Your task to perform on an android device: Clear the shopping cart on amazon. Search for "usb-a" on amazon, select the first entry, and add it to the cart. Image 0: 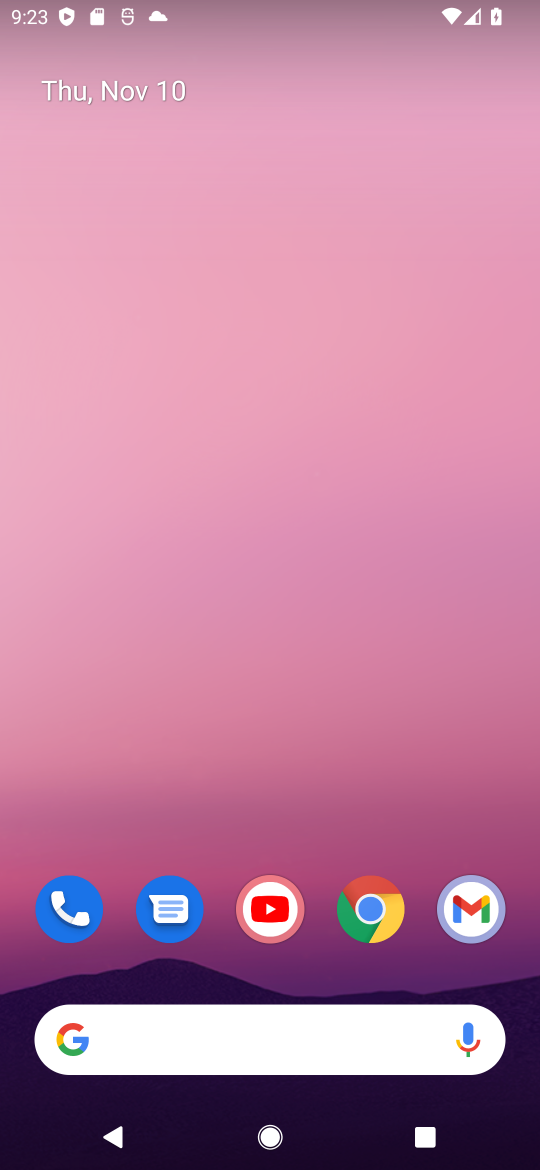
Step 0: drag from (313, 378) to (334, 285)
Your task to perform on an android device: Clear the shopping cart on amazon. Search for "usb-a" on amazon, select the first entry, and add it to the cart. Image 1: 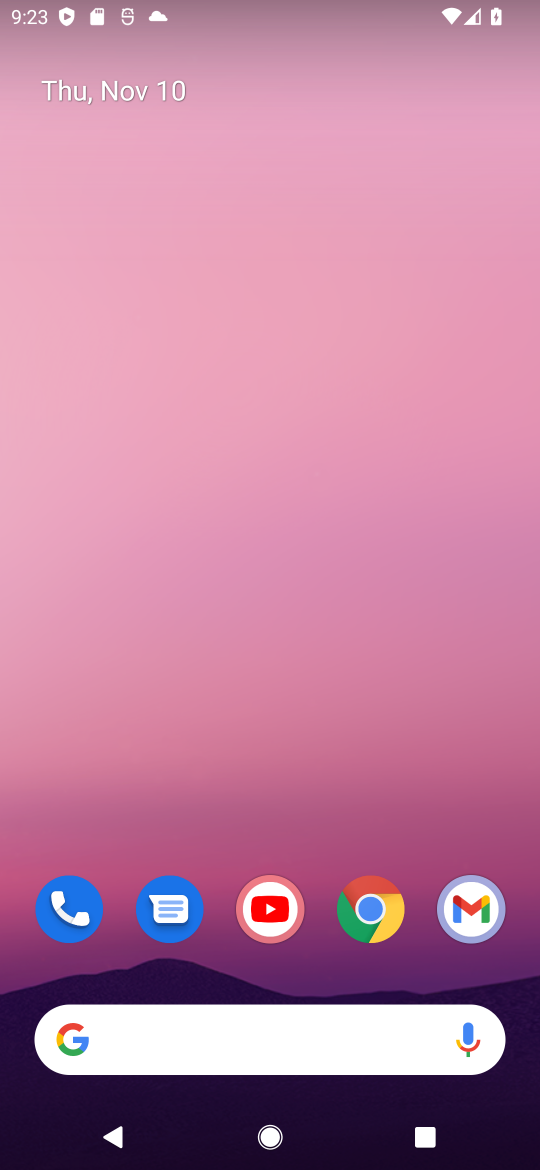
Step 1: drag from (218, 990) to (350, 264)
Your task to perform on an android device: Clear the shopping cart on amazon. Search for "usb-a" on amazon, select the first entry, and add it to the cart. Image 2: 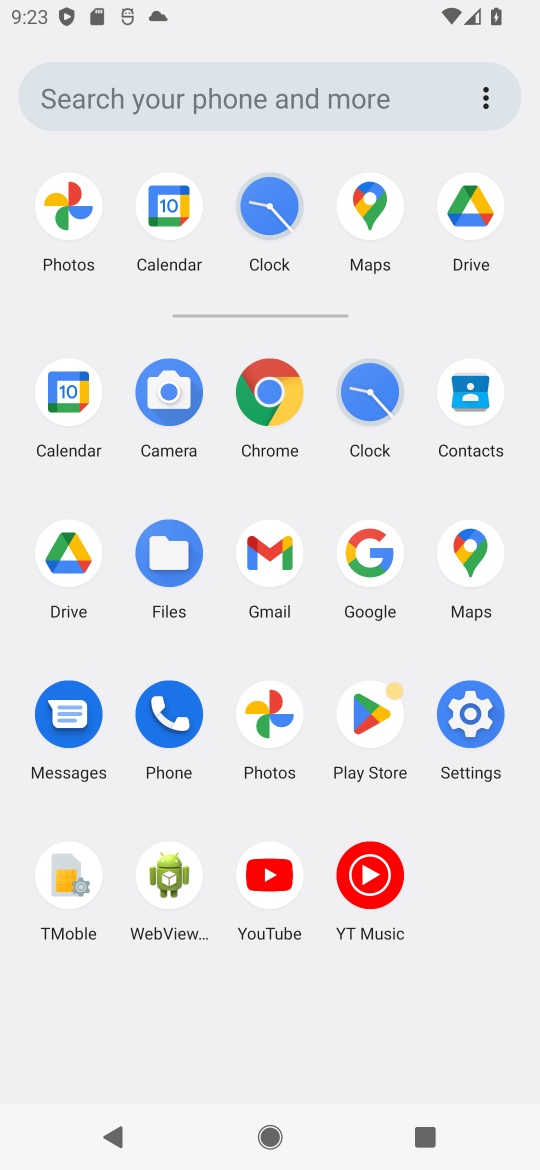
Step 2: click (363, 545)
Your task to perform on an android device: Clear the shopping cart on amazon. Search for "usb-a" on amazon, select the first entry, and add it to the cart. Image 3: 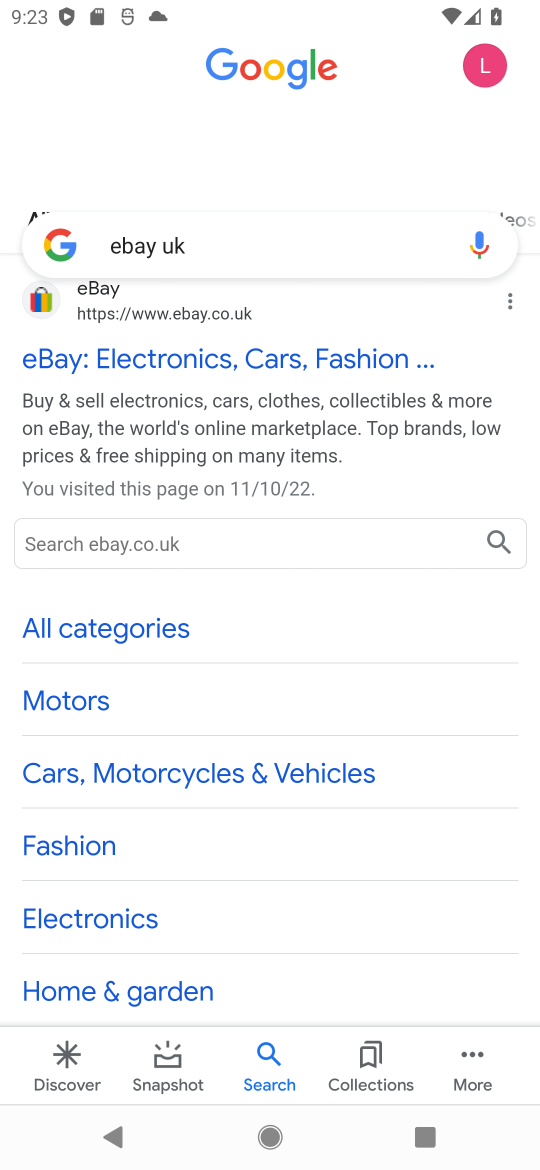
Step 3: click (267, 237)
Your task to perform on an android device: Clear the shopping cart on amazon. Search for "usb-a" on amazon, select the first entry, and add it to the cart. Image 4: 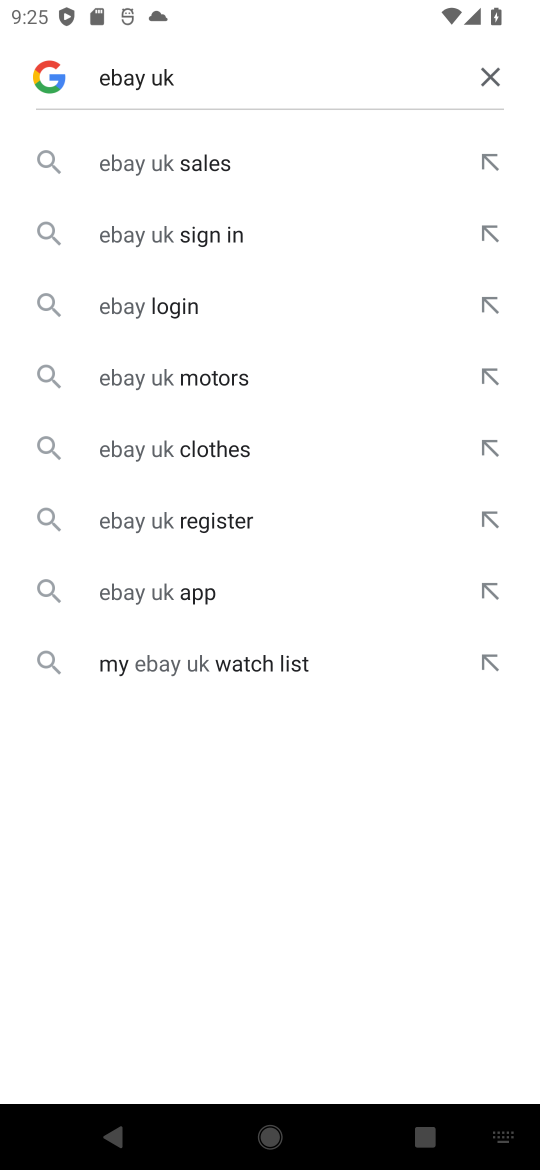
Step 4: click (484, 75)
Your task to perform on an android device: Clear the shopping cart on amazon. Search for "usb-a" on amazon, select the first entry, and add it to the cart. Image 5: 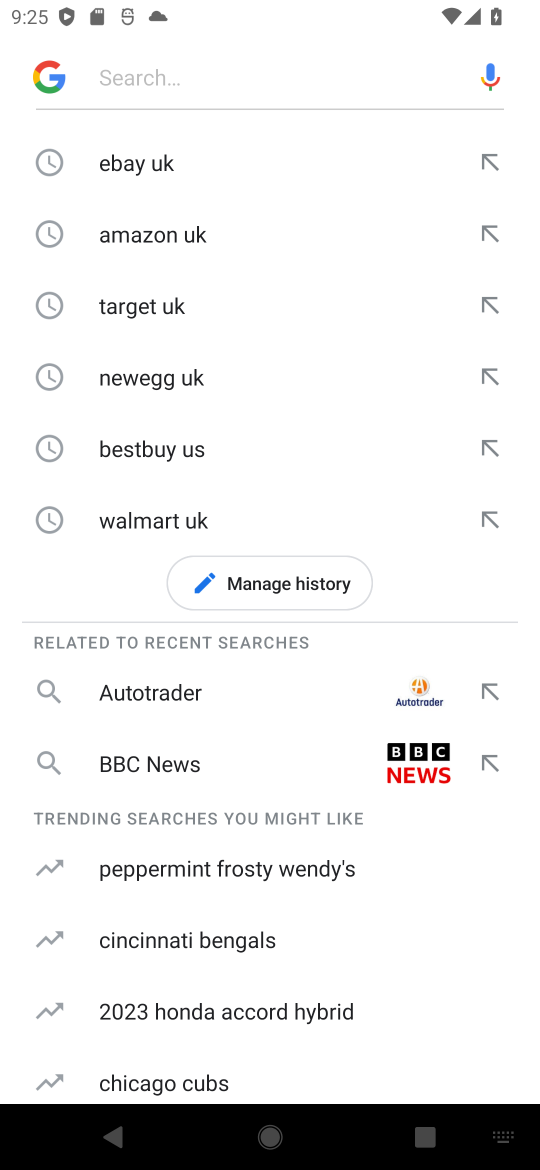
Step 5: click (189, 64)
Your task to perform on an android device: Clear the shopping cart on amazon. Search for "usb-a" on amazon, select the first entry, and add it to the cart. Image 6: 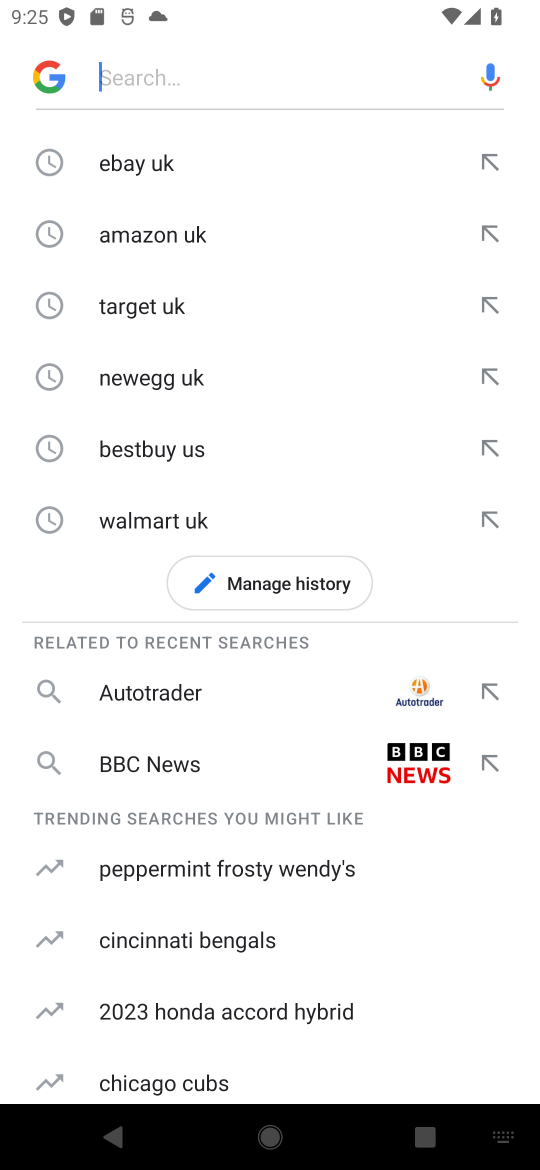
Step 6: type "amazon "
Your task to perform on an android device: Clear the shopping cart on amazon. Search for "usb-a" on amazon, select the first entry, and add it to the cart. Image 7: 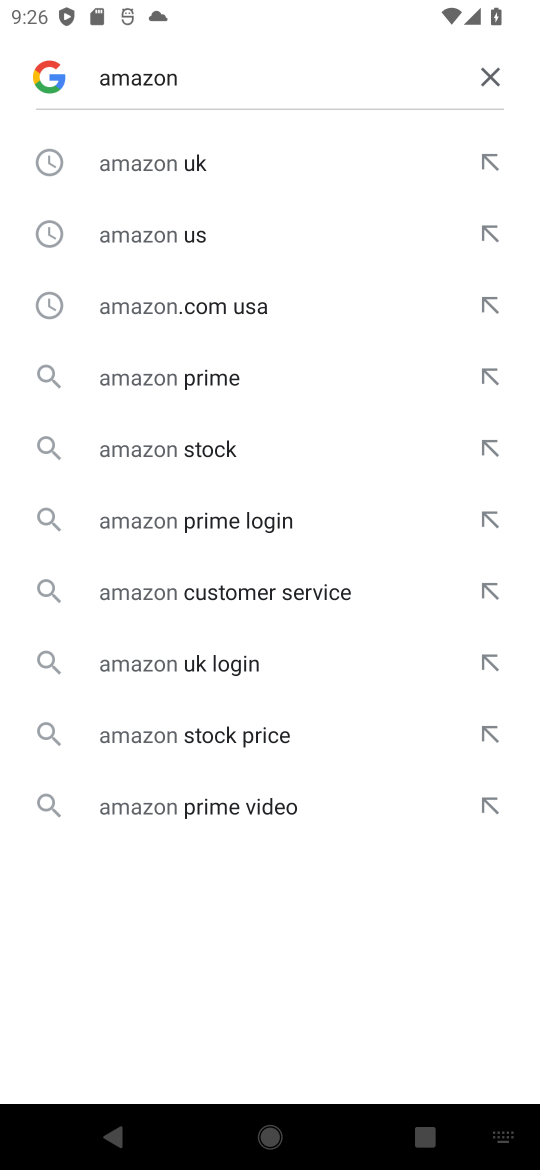
Step 7: click (101, 165)
Your task to perform on an android device: Clear the shopping cart on amazon. Search for "usb-a" on amazon, select the first entry, and add it to the cart. Image 8: 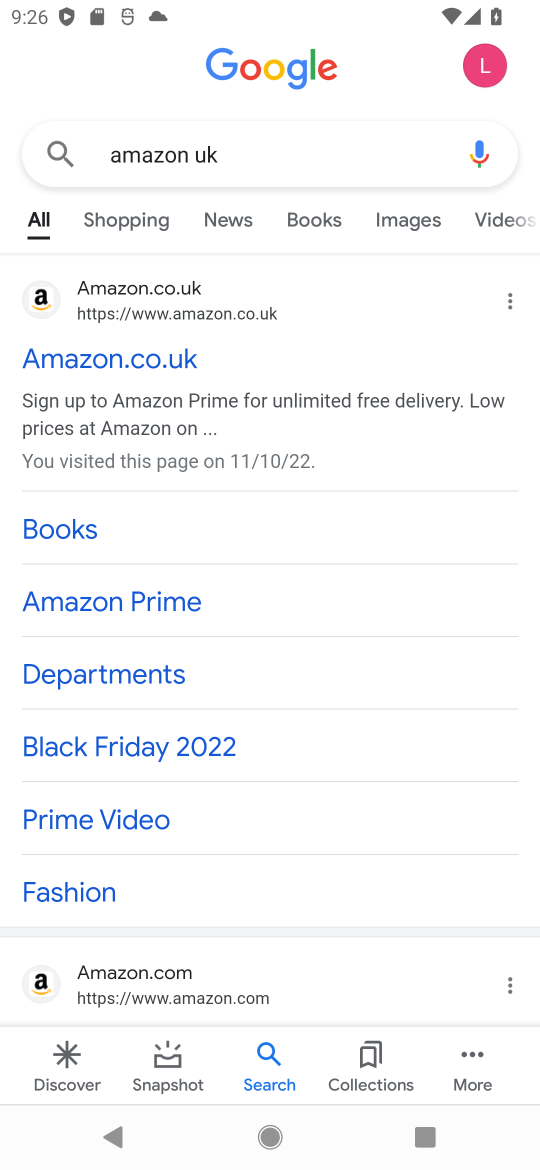
Step 8: click (26, 301)
Your task to perform on an android device: Clear the shopping cart on amazon. Search for "usb-a" on amazon, select the first entry, and add it to the cart. Image 9: 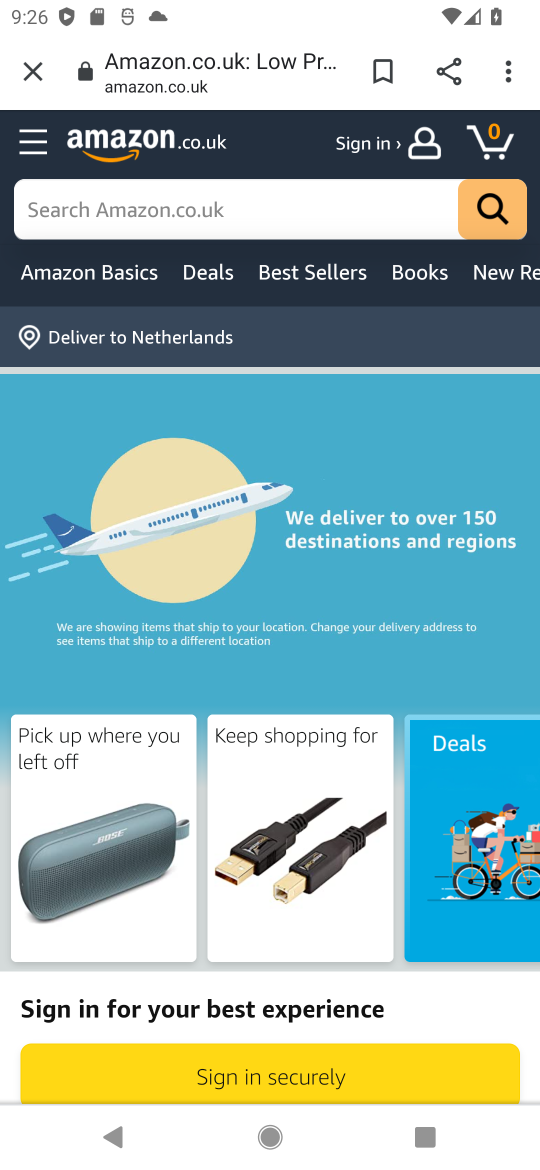
Step 9: click (177, 209)
Your task to perform on an android device: Clear the shopping cart on amazon. Search for "usb-a" on amazon, select the first entry, and add it to the cart. Image 10: 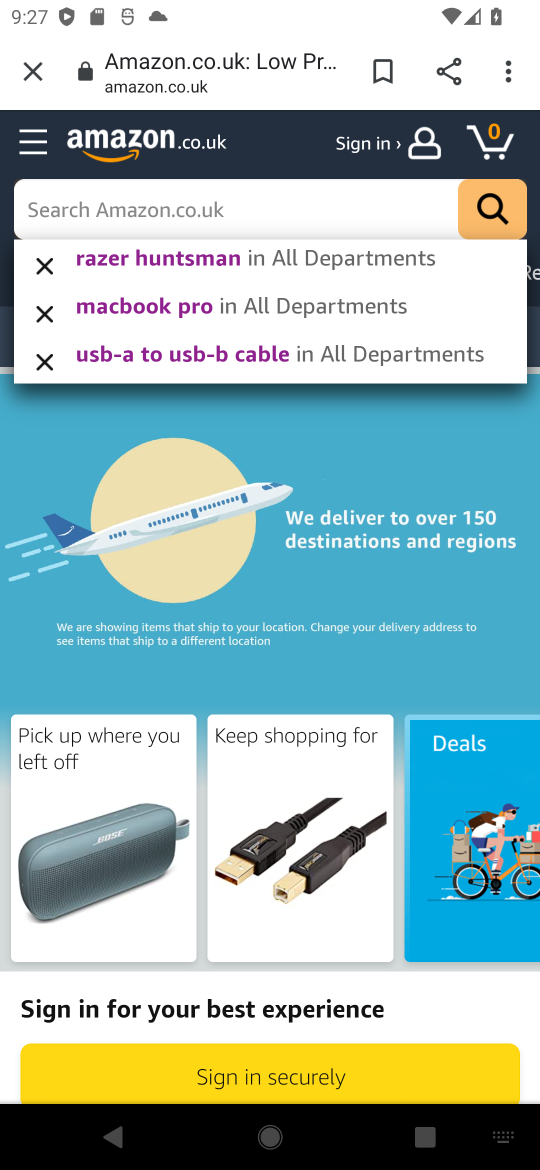
Step 10: type "usb-a "
Your task to perform on an android device: Clear the shopping cart on amazon. Search for "usb-a" on amazon, select the first entry, and add it to the cart. Image 11: 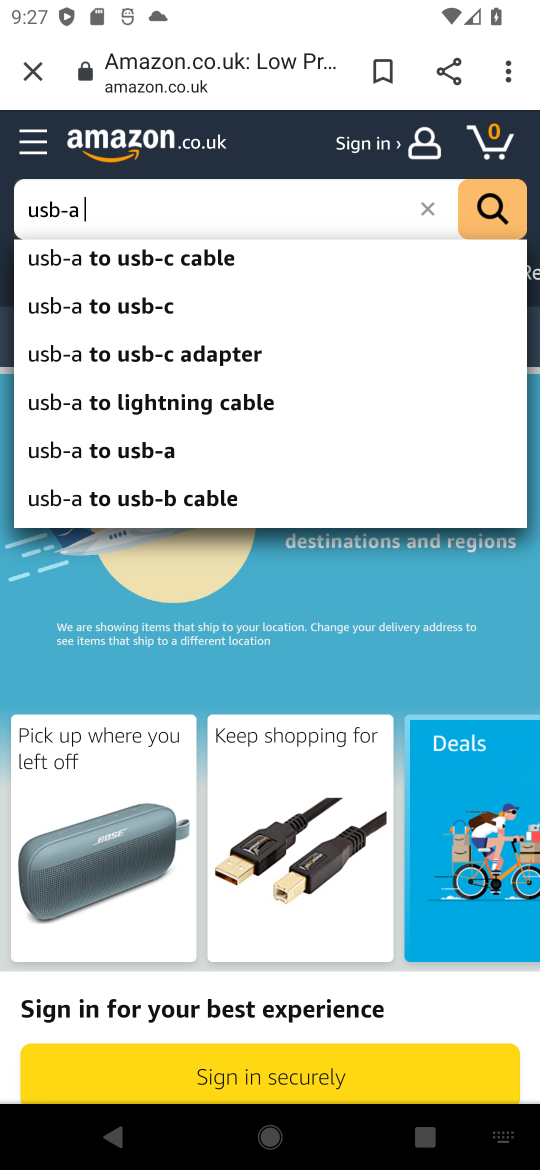
Step 11: click (122, 493)
Your task to perform on an android device: Clear the shopping cart on amazon. Search for "usb-a" on amazon, select the first entry, and add it to the cart. Image 12: 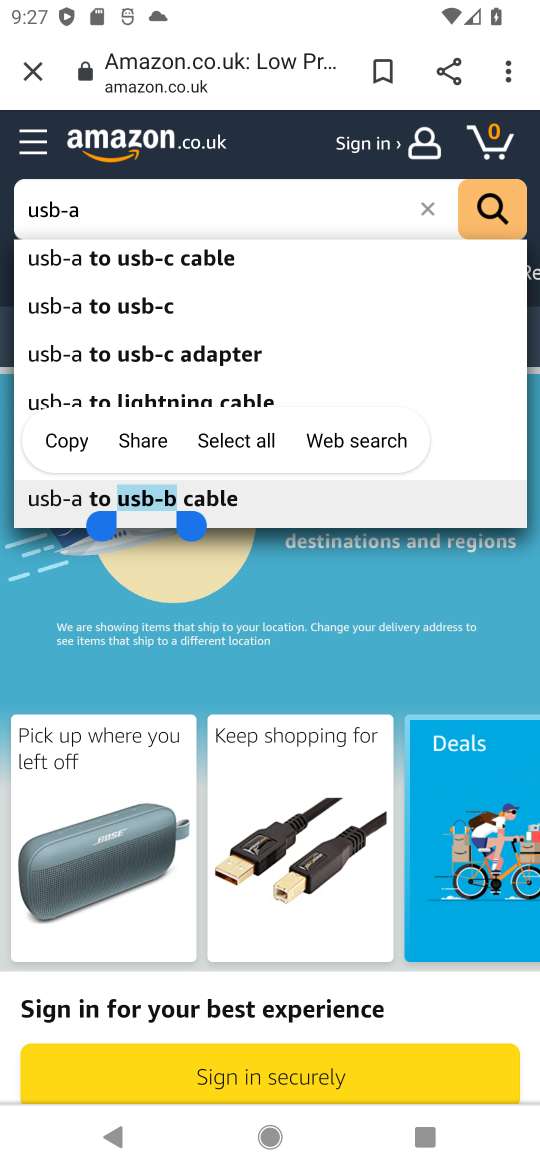
Step 12: click (160, 245)
Your task to perform on an android device: Clear the shopping cart on amazon. Search for "usb-a" on amazon, select the first entry, and add it to the cart. Image 13: 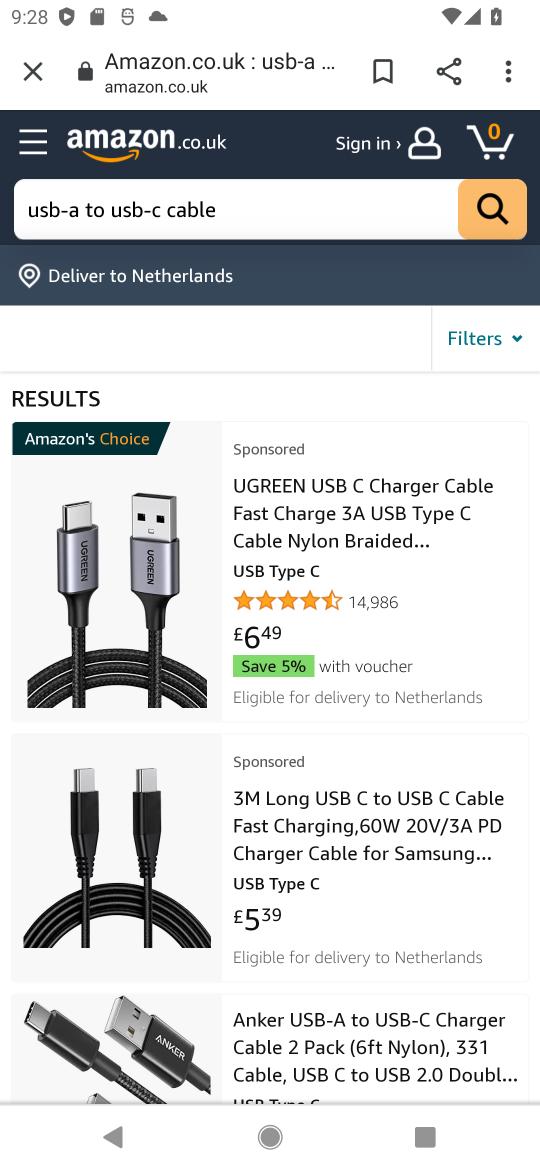
Step 13: click (424, 485)
Your task to perform on an android device: Clear the shopping cart on amazon. Search for "usb-a" on amazon, select the first entry, and add it to the cart. Image 14: 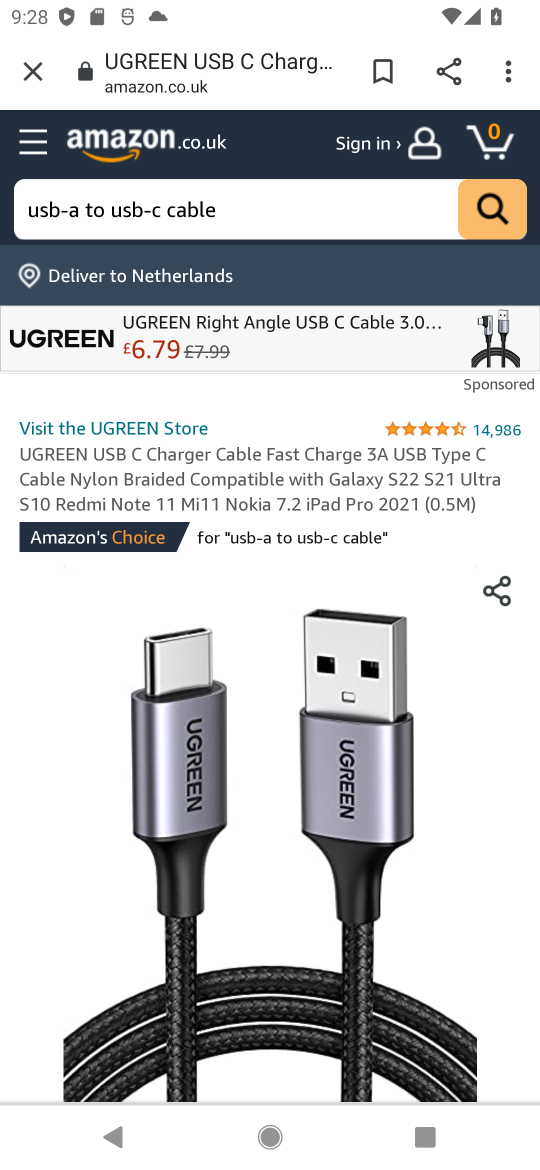
Step 14: drag from (370, 872) to (436, 489)
Your task to perform on an android device: Clear the shopping cart on amazon. Search for "usb-a" on amazon, select the first entry, and add it to the cart. Image 15: 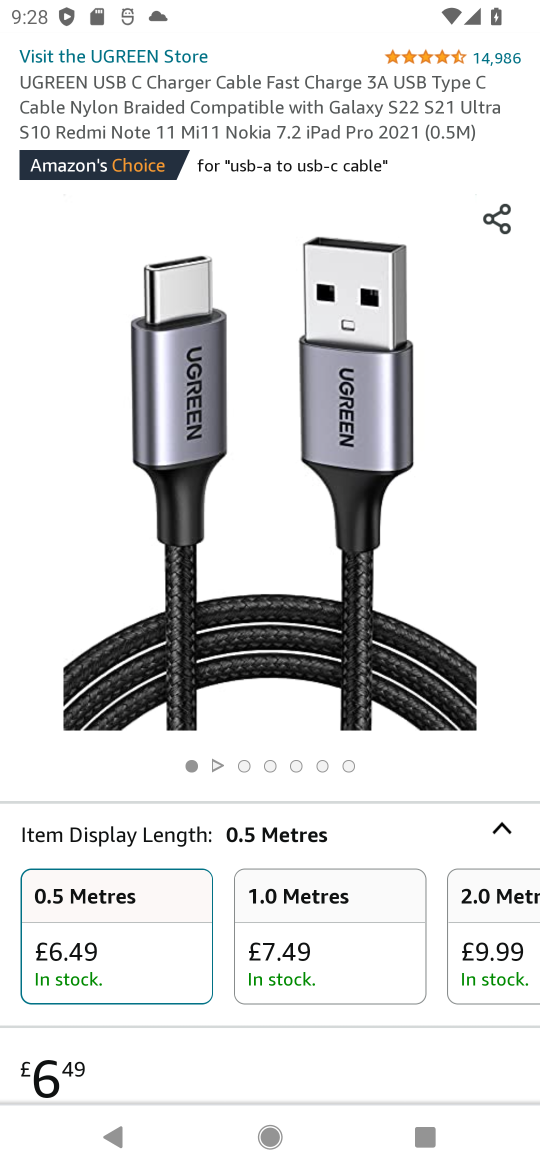
Step 15: drag from (235, 1021) to (419, 229)
Your task to perform on an android device: Clear the shopping cart on amazon. Search for "usb-a" on amazon, select the first entry, and add it to the cart. Image 16: 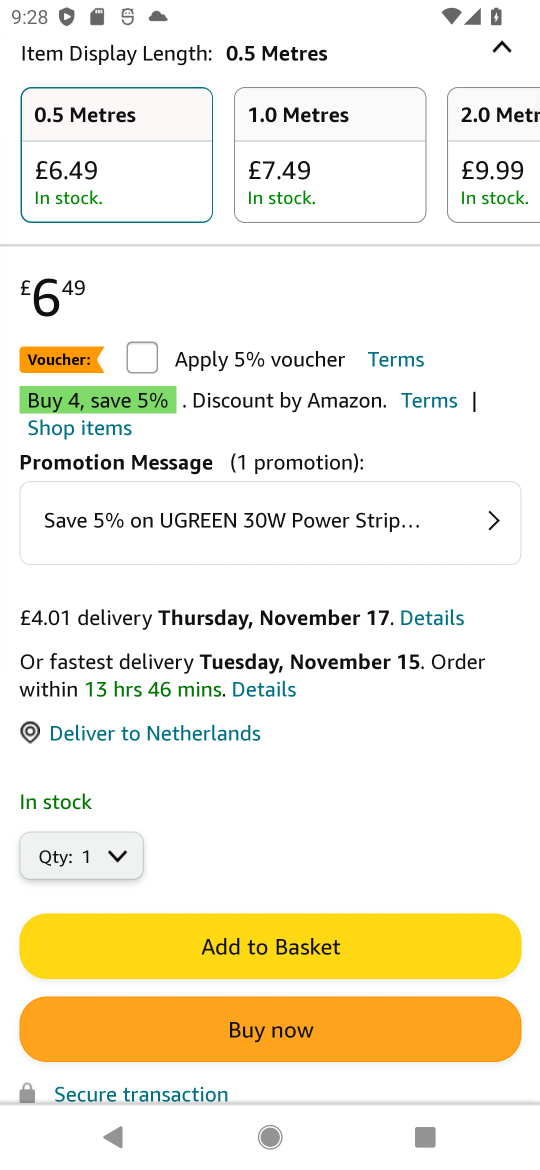
Step 16: drag from (274, 884) to (314, 544)
Your task to perform on an android device: Clear the shopping cart on amazon. Search for "usb-a" on amazon, select the first entry, and add it to the cart. Image 17: 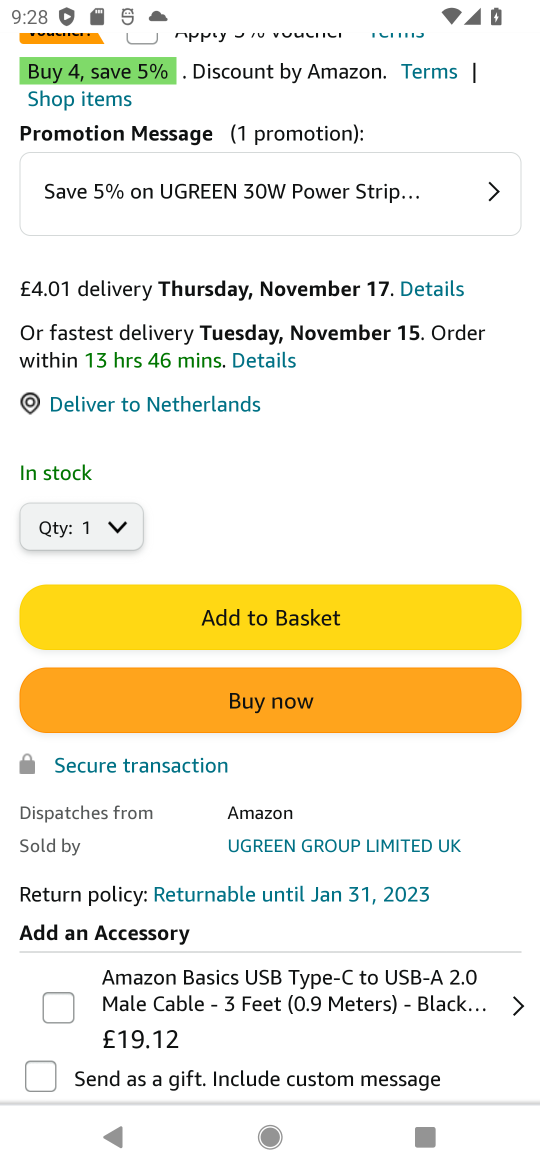
Step 17: click (315, 589)
Your task to perform on an android device: Clear the shopping cart on amazon. Search for "usb-a" on amazon, select the first entry, and add it to the cart. Image 18: 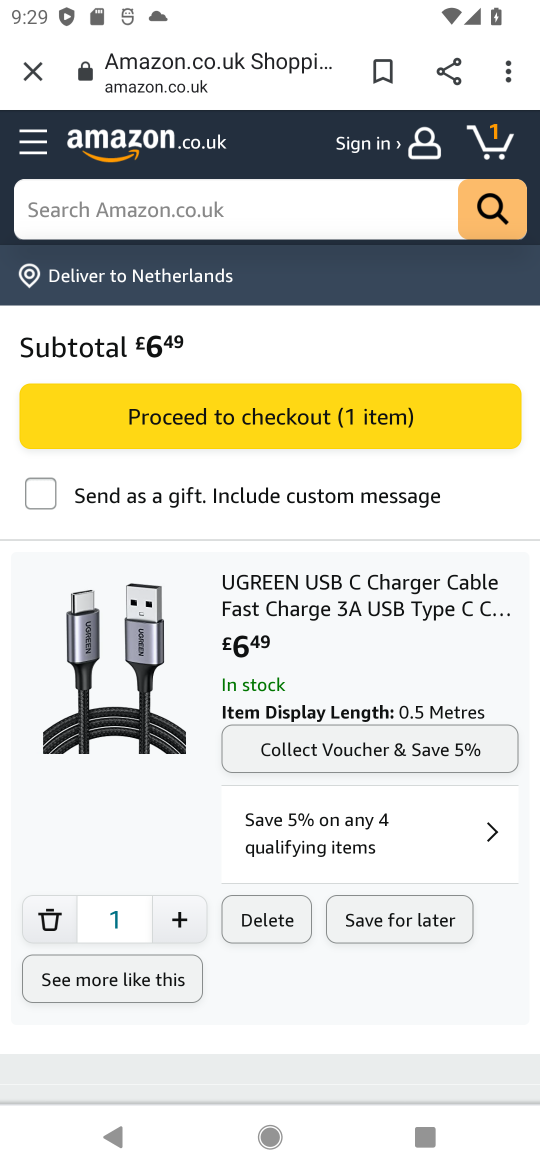
Step 18: task complete